Your task to perform on an android device: Go to Android settings Image 0: 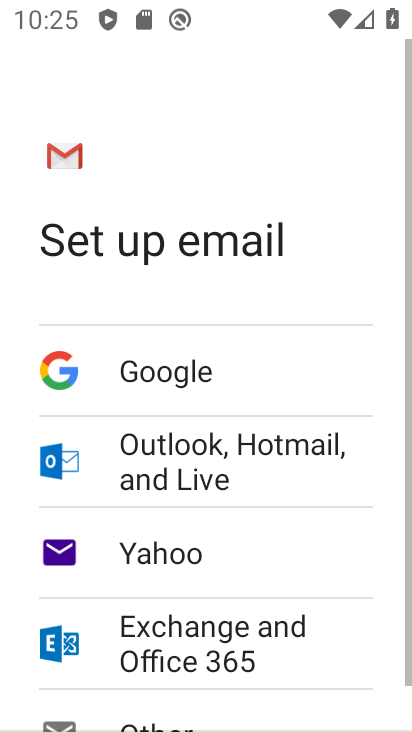
Step 0: press home button
Your task to perform on an android device: Go to Android settings Image 1: 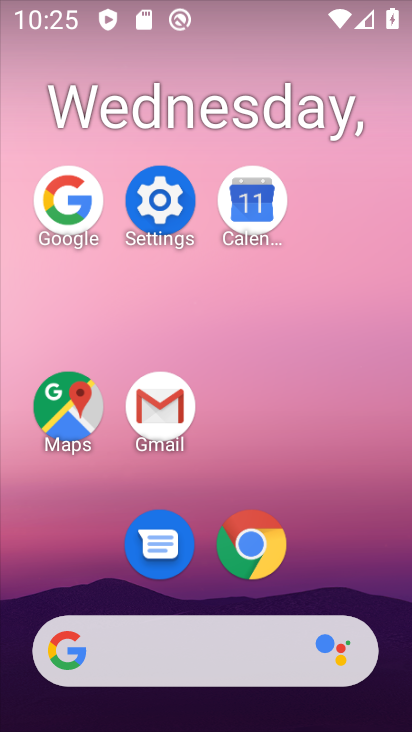
Step 1: click (171, 196)
Your task to perform on an android device: Go to Android settings Image 2: 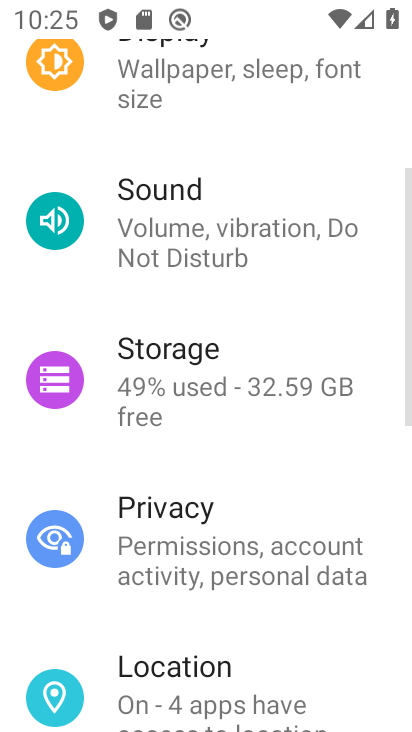
Step 2: task complete